Your task to perform on an android device: Open privacy settings Image 0: 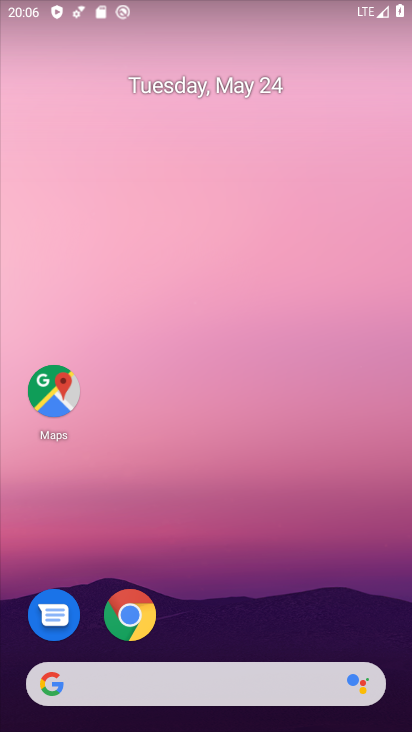
Step 0: drag from (242, 555) to (239, 272)
Your task to perform on an android device: Open privacy settings Image 1: 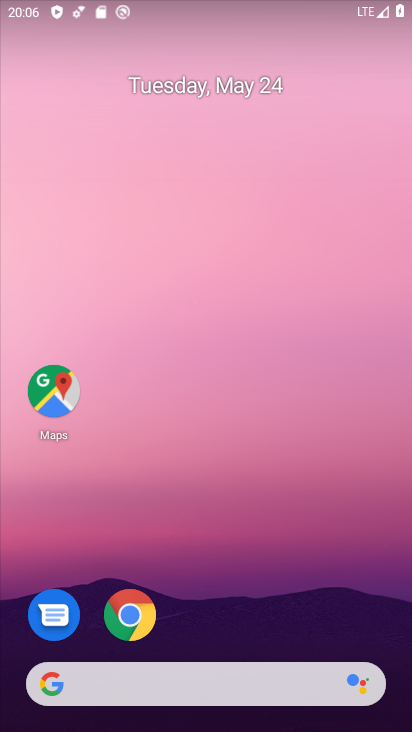
Step 1: drag from (168, 590) to (211, 209)
Your task to perform on an android device: Open privacy settings Image 2: 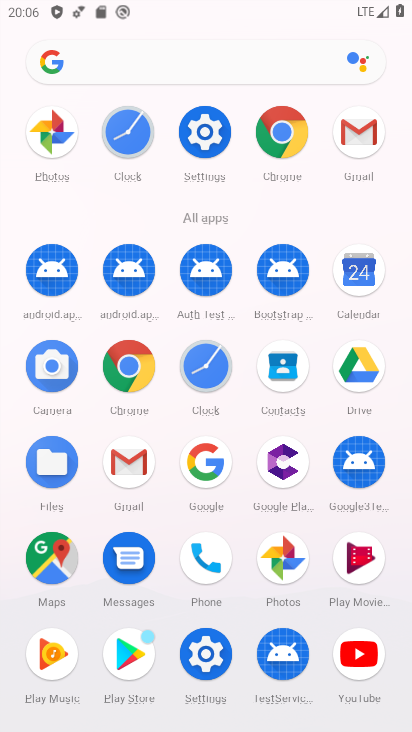
Step 2: click (201, 128)
Your task to perform on an android device: Open privacy settings Image 3: 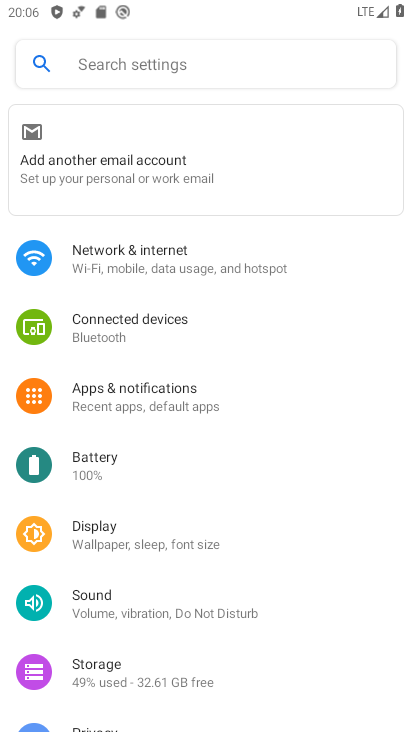
Step 3: drag from (131, 548) to (195, 225)
Your task to perform on an android device: Open privacy settings Image 4: 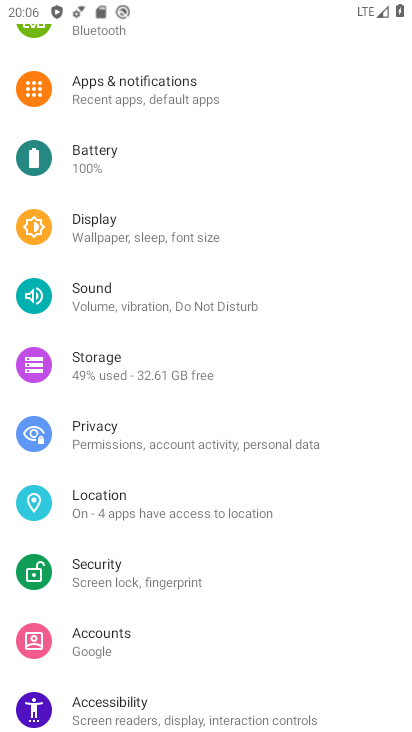
Step 4: click (160, 441)
Your task to perform on an android device: Open privacy settings Image 5: 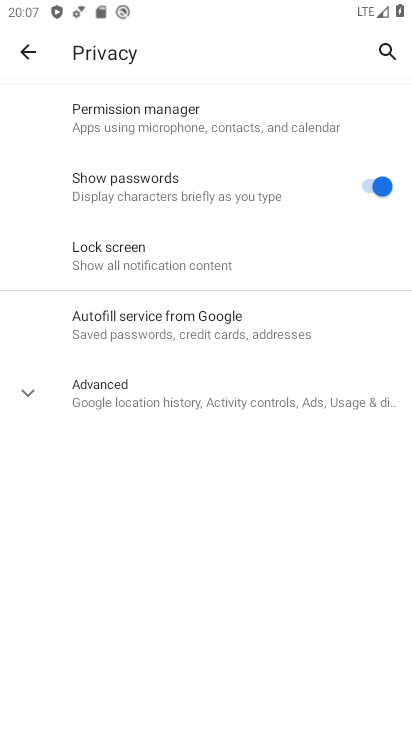
Step 5: task complete